Your task to perform on an android device: check storage Image 0: 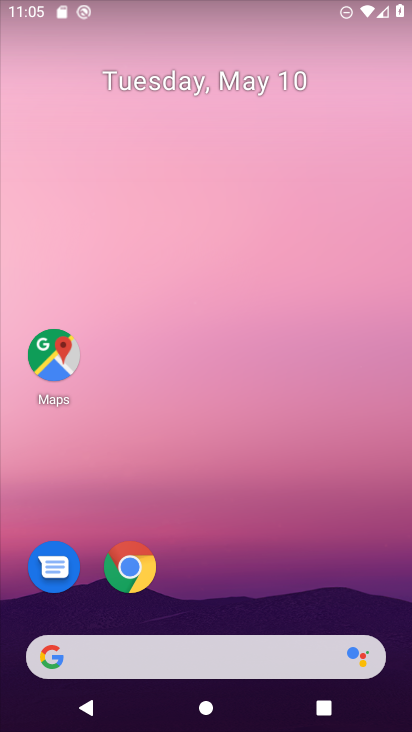
Step 0: drag from (188, 408) to (187, 51)
Your task to perform on an android device: check storage Image 1: 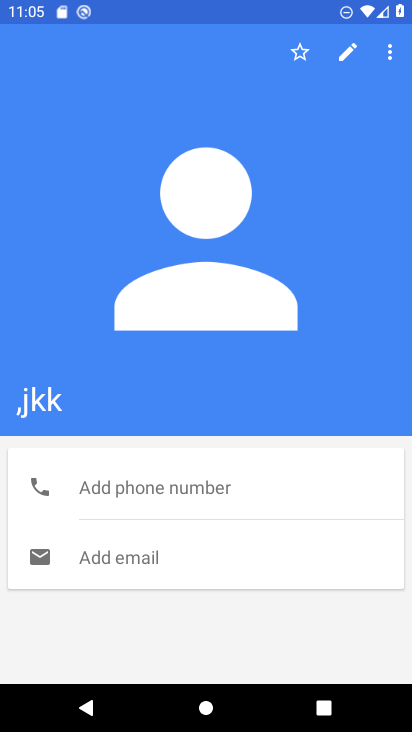
Step 1: press home button
Your task to perform on an android device: check storage Image 2: 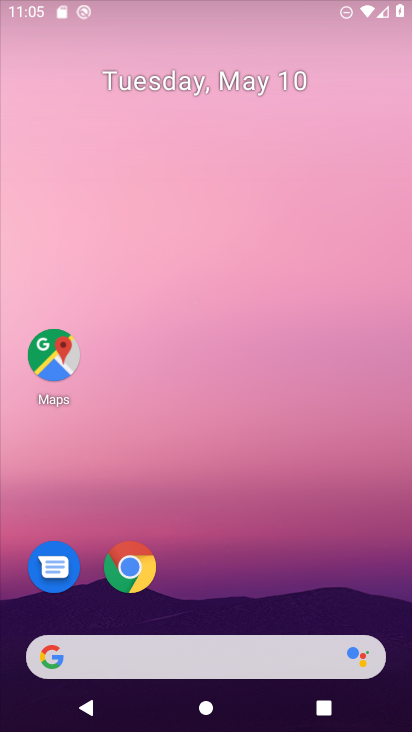
Step 2: drag from (191, 555) to (235, 69)
Your task to perform on an android device: check storage Image 3: 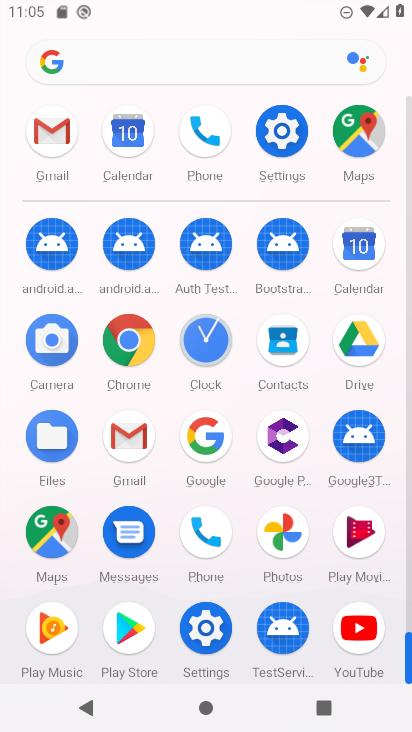
Step 3: click (297, 136)
Your task to perform on an android device: check storage Image 4: 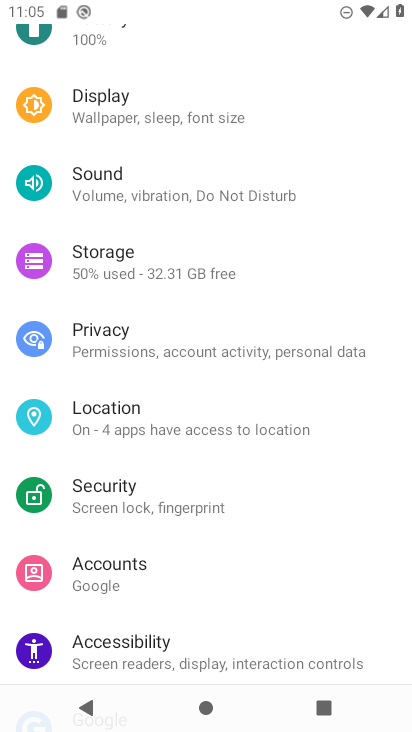
Step 4: click (117, 251)
Your task to perform on an android device: check storage Image 5: 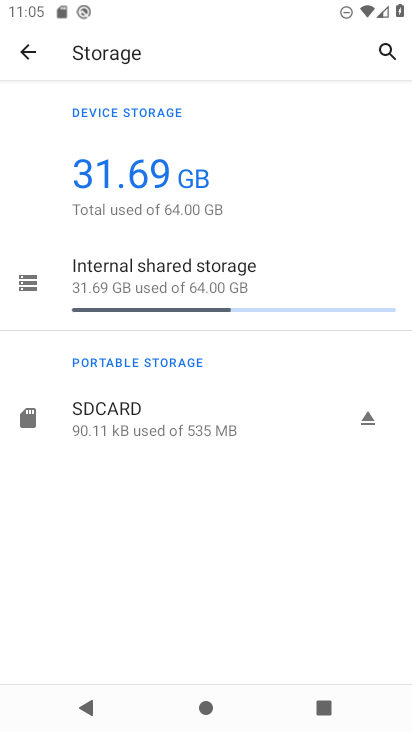
Step 5: task complete